Your task to perform on an android device: Clear the shopping cart on newegg. Add razer nari to the cart on newegg, then select checkout. Image 0: 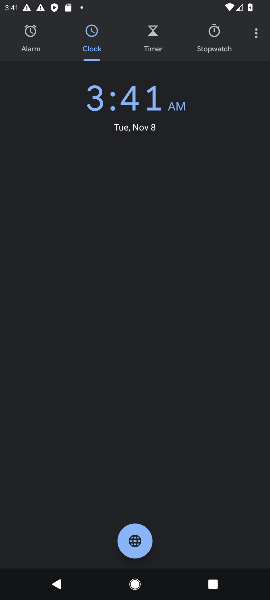
Step 0: press home button
Your task to perform on an android device: Clear the shopping cart on newegg. Add razer nari to the cart on newegg, then select checkout. Image 1: 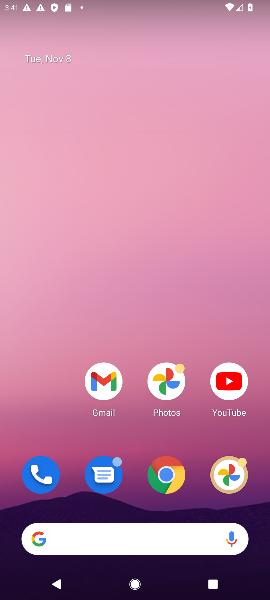
Step 1: drag from (87, 501) to (98, 158)
Your task to perform on an android device: Clear the shopping cart on newegg. Add razer nari to the cart on newegg, then select checkout. Image 2: 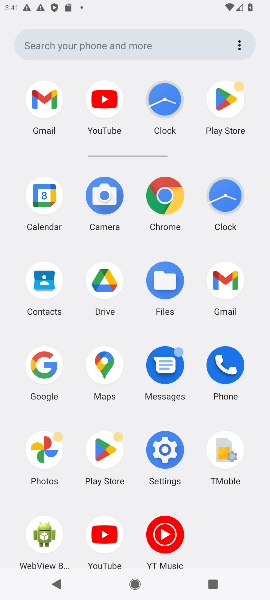
Step 2: click (37, 356)
Your task to perform on an android device: Clear the shopping cart on newegg. Add razer nari to the cart on newegg, then select checkout. Image 3: 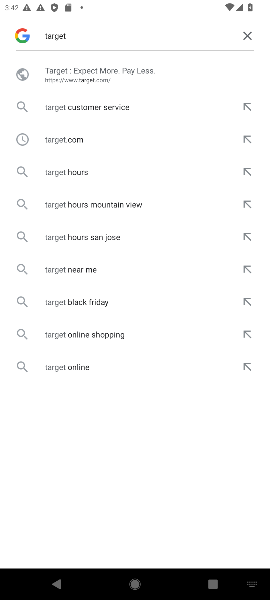
Step 3: click (250, 35)
Your task to perform on an android device: Clear the shopping cart on newegg. Add razer nari to the cart on newegg, then select checkout. Image 4: 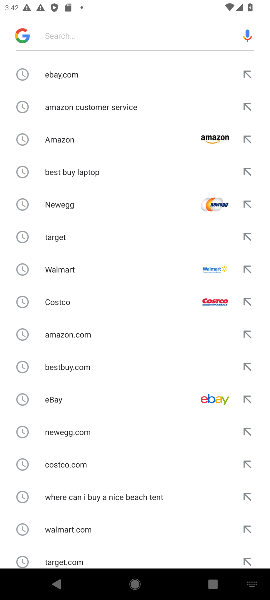
Step 4: click (79, 26)
Your task to perform on an android device: Clear the shopping cart on newegg. Add razer nari to the cart on newegg, then select checkout. Image 5: 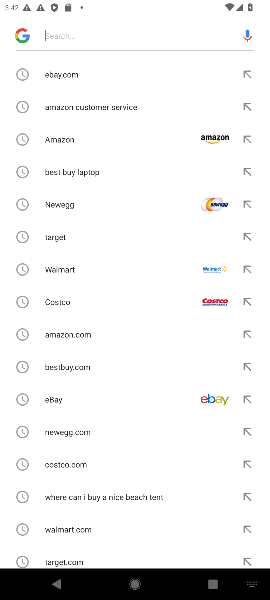
Step 5: type "newegg "
Your task to perform on an android device: Clear the shopping cart on newegg. Add razer nari to the cart on newegg, then select checkout. Image 6: 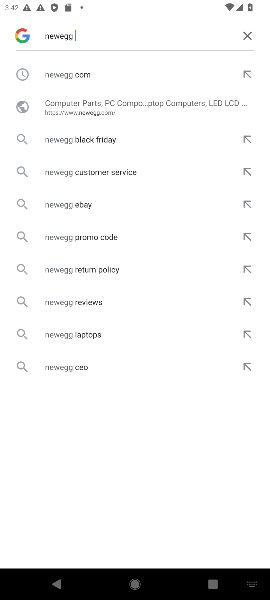
Step 6: click (68, 73)
Your task to perform on an android device: Clear the shopping cart on newegg. Add razer nari to the cart on newegg, then select checkout. Image 7: 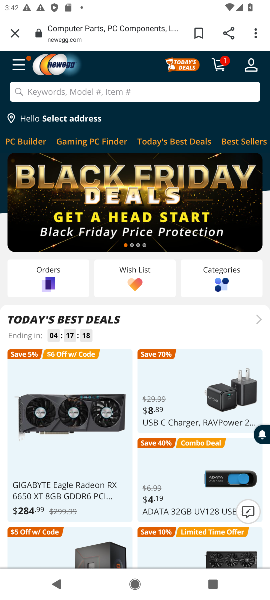
Step 7: click (162, 85)
Your task to perform on an android device: Clear the shopping cart on newegg. Add razer nari to the cart on newegg, then select checkout. Image 8: 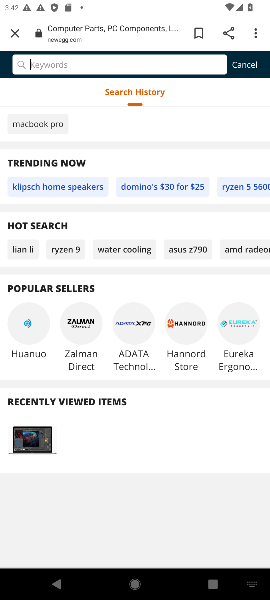
Step 8: click (140, 59)
Your task to perform on an android device: Clear the shopping cart on newegg. Add razer nari to the cart on newegg, then select checkout. Image 9: 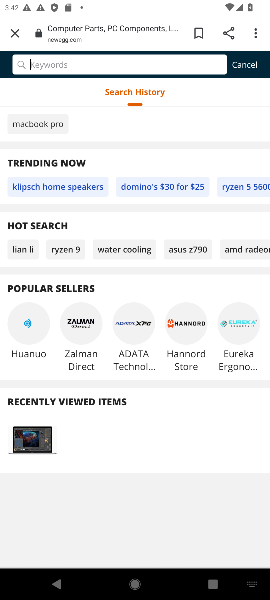
Step 9: type "razer nari  "
Your task to perform on an android device: Clear the shopping cart on newegg. Add razer nari to the cart on newegg, then select checkout. Image 10: 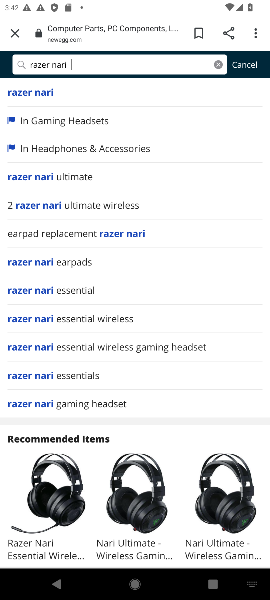
Step 10: click (39, 94)
Your task to perform on an android device: Clear the shopping cart on newegg. Add razer nari to the cart on newegg, then select checkout. Image 11: 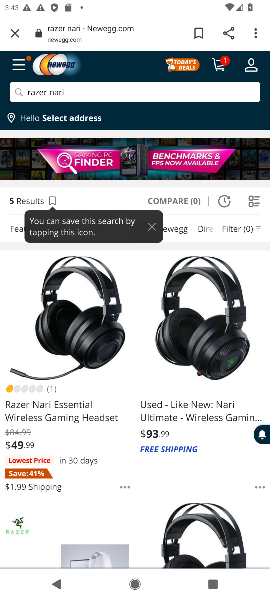
Step 11: click (68, 401)
Your task to perform on an android device: Clear the shopping cart on newegg. Add razer nari to the cart on newegg, then select checkout. Image 12: 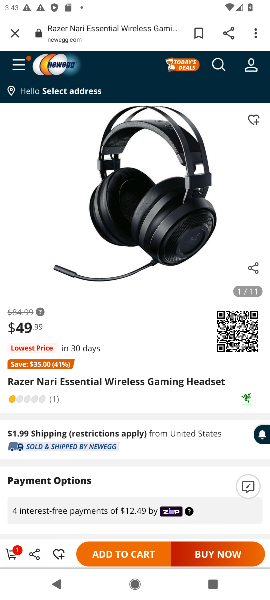
Step 12: click (135, 552)
Your task to perform on an android device: Clear the shopping cart on newegg. Add razer nari to the cart on newegg, then select checkout. Image 13: 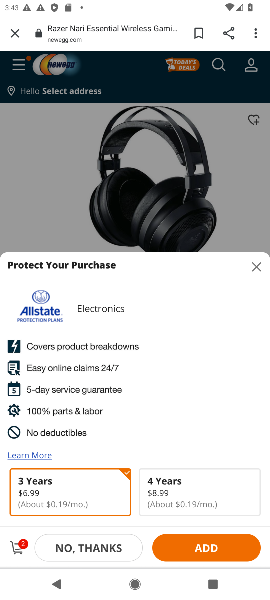
Step 13: task complete